Your task to perform on an android device: Search for Mexican restaurants on Maps Image 0: 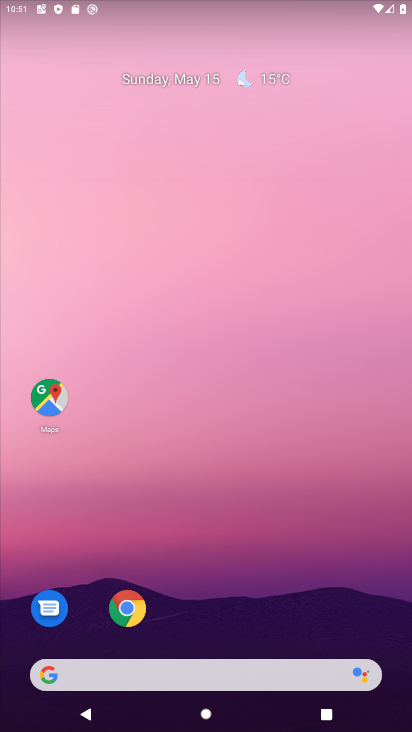
Step 0: click (58, 417)
Your task to perform on an android device: Search for Mexican restaurants on Maps Image 1: 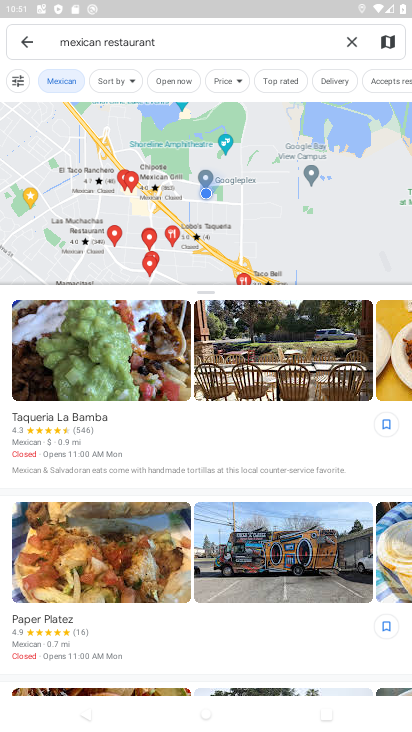
Step 1: task complete